Your task to perform on an android device: When is my next appointment? Image 0: 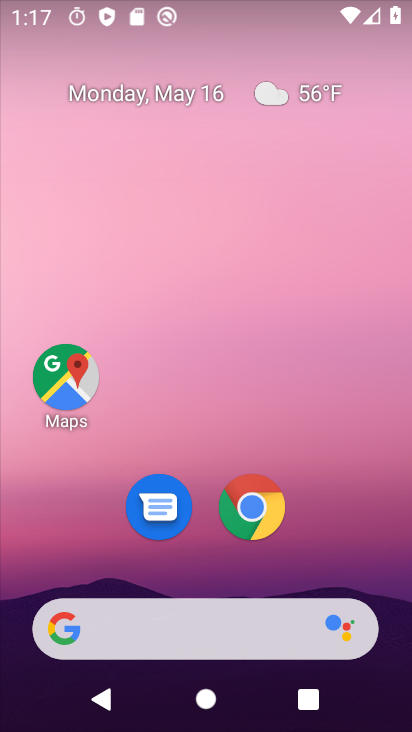
Step 0: drag from (167, 575) to (158, 153)
Your task to perform on an android device: When is my next appointment? Image 1: 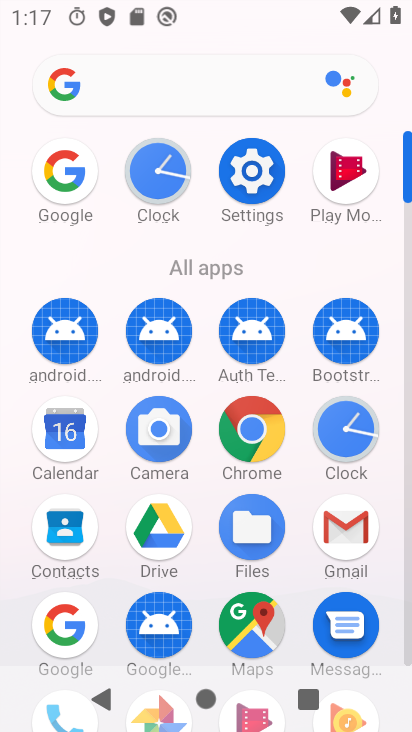
Step 1: drag from (200, 563) to (200, 292)
Your task to perform on an android device: When is my next appointment? Image 2: 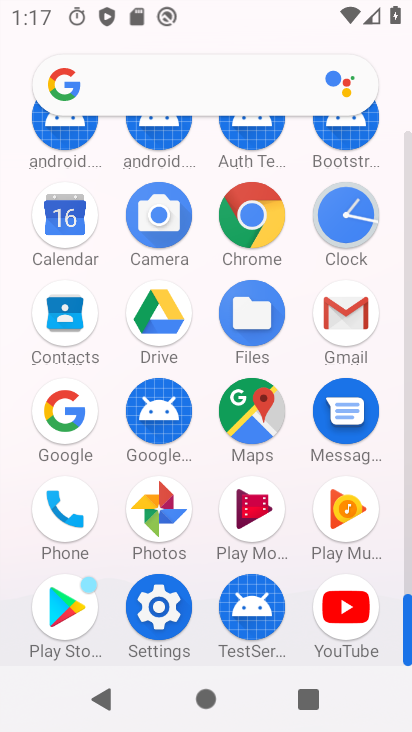
Step 2: click (71, 212)
Your task to perform on an android device: When is my next appointment? Image 3: 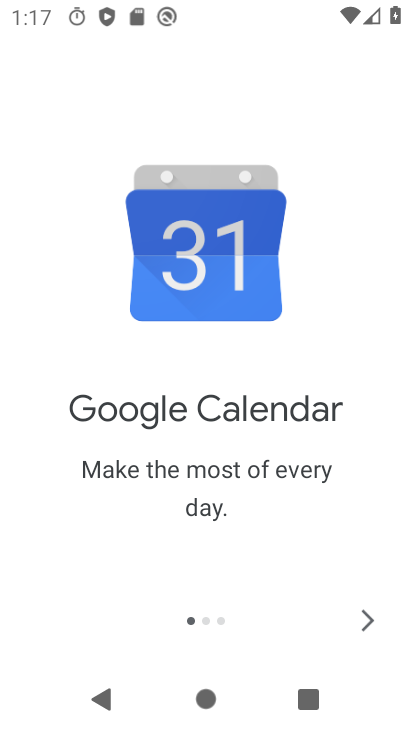
Step 3: click (351, 631)
Your task to perform on an android device: When is my next appointment? Image 4: 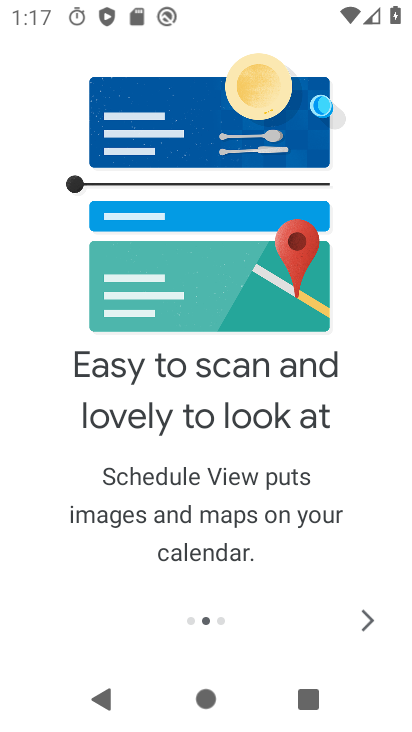
Step 4: click (354, 630)
Your task to perform on an android device: When is my next appointment? Image 5: 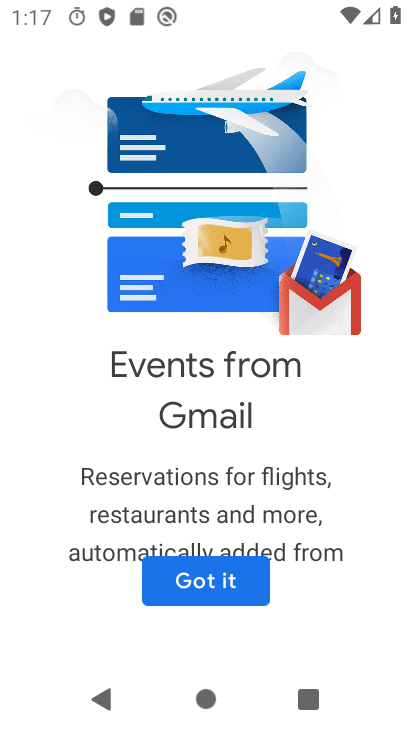
Step 5: click (228, 585)
Your task to perform on an android device: When is my next appointment? Image 6: 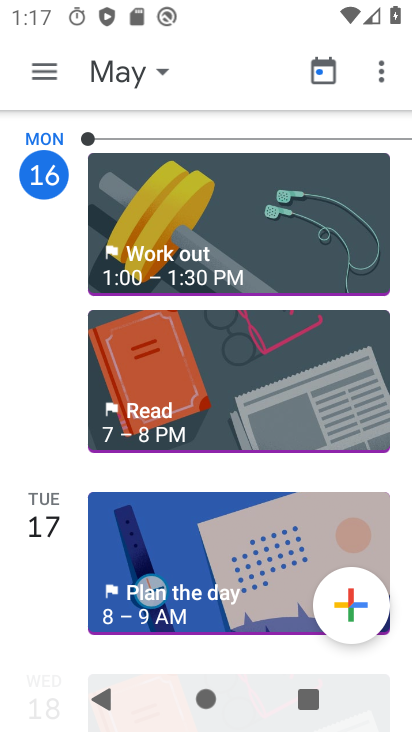
Step 6: click (150, 68)
Your task to perform on an android device: When is my next appointment? Image 7: 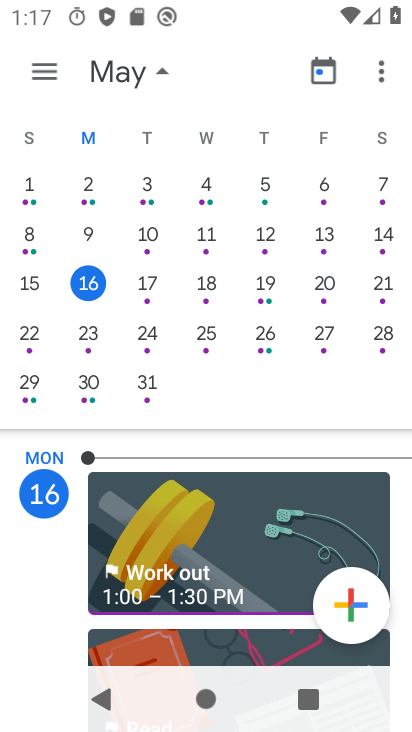
Step 7: click (189, 337)
Your task to perform on an android device: When is my next appointment? Image 8: 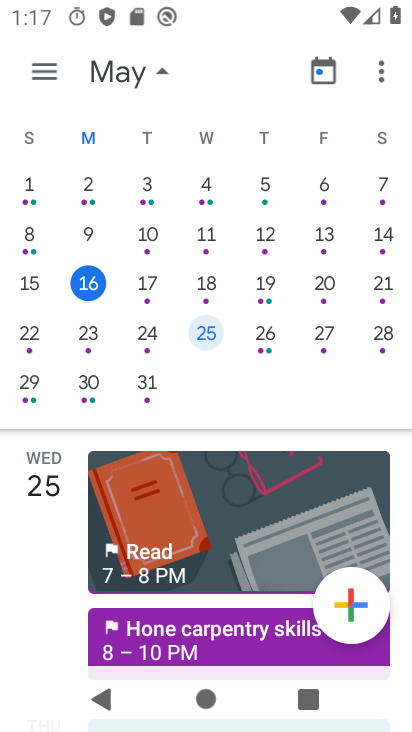
Step 8: task complete